Your task to perform on an android device: change timer sound Image 0: 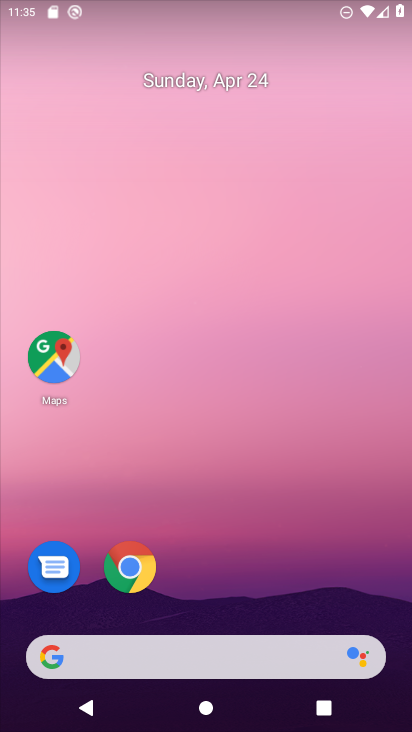
Step 0: drag from (333, 604) to (337, 24)
Your task to perform on an android device: change timer sound Image 1: 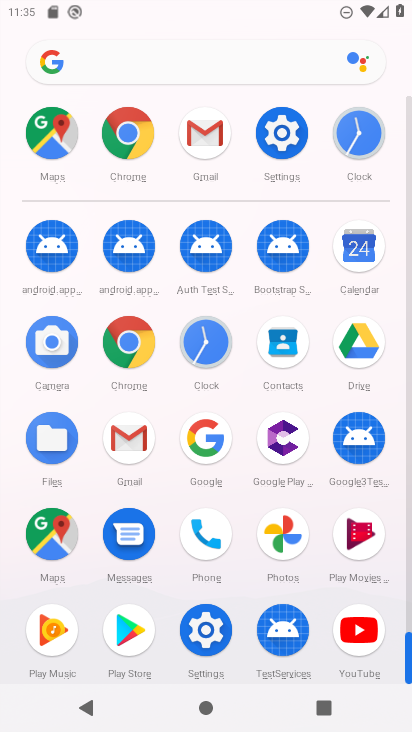
Step 1: click (218, 342)
Your task to perform on an android device: change timer sound Image 2: 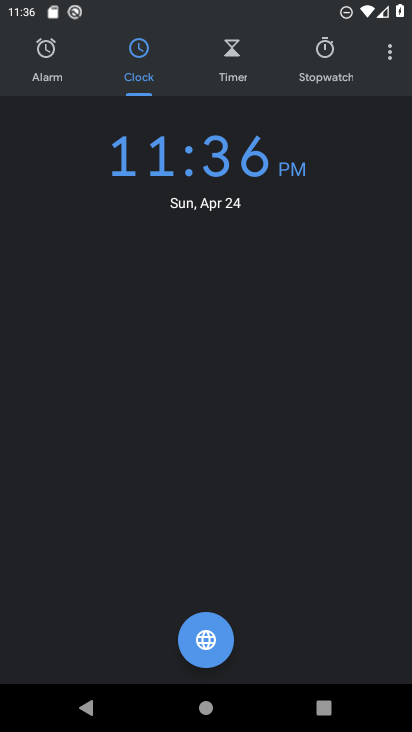
Step 2: click (387, 52)
Your task to perform on an android device: change timer sound Image 3: 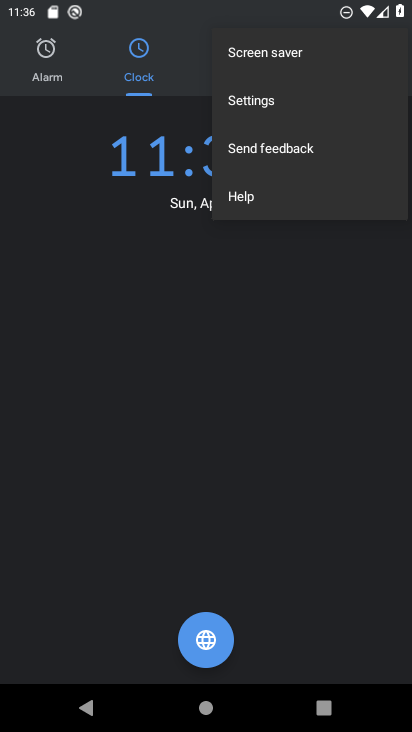
Step 3: click (249, 95)
Your task to perform on an android device: change timer sound Image 4: 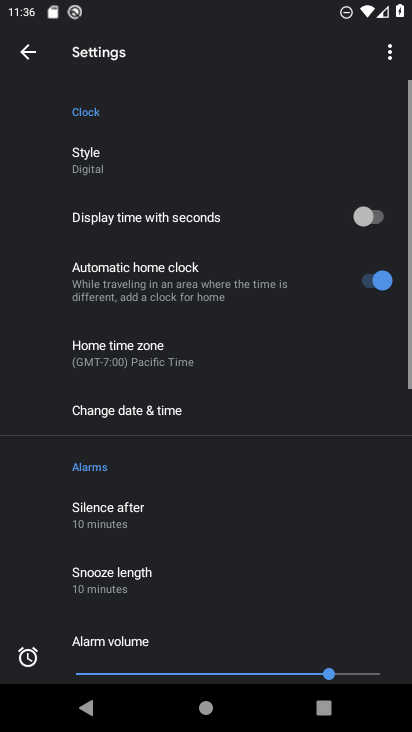
Step 4: drag from (280, 523) to (338, 167)
Your task to perform on an android device: change timer sound Image 5: 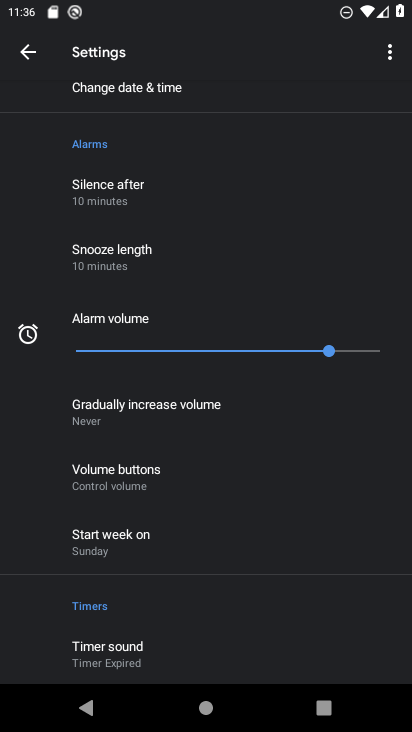
Step 5: drag from (335, 655) to (348, 369)
Your task to perform on an android device: change timer sound Image 6: 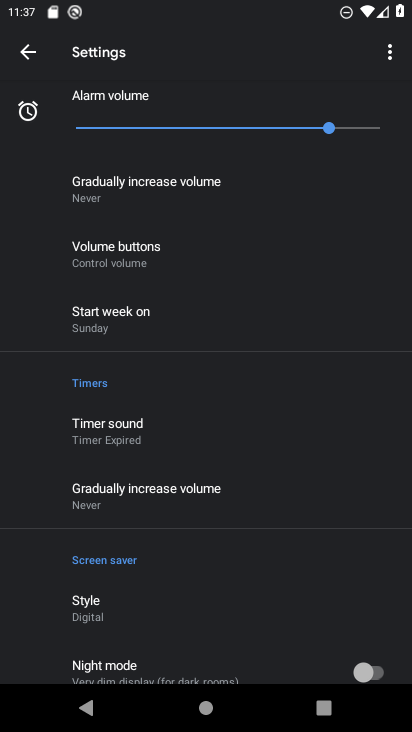
Step 6: click (110, 432)
Your task to perform on an android device: change timer sound Image 7: 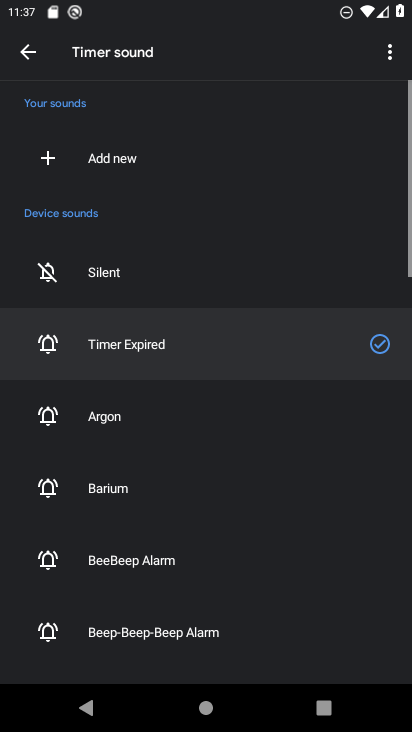
Step 7: click (77, 491)
Your task to perform on an android device: change timer sound Image 8: 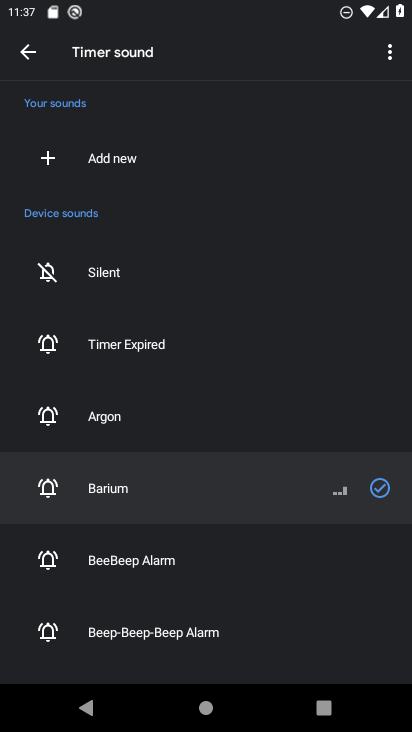
Step 8: task complete